Your task to perform on an android device: Turn on the flashlight Image 0: 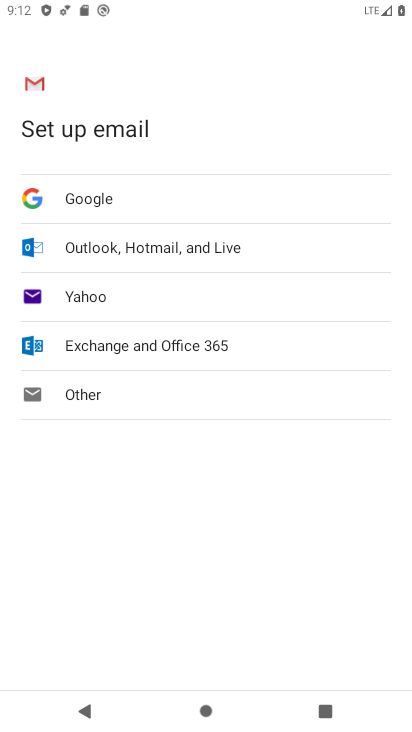
Step 0: press back button
Your task to perform on an android device: Turn on the flashlight Image 1: 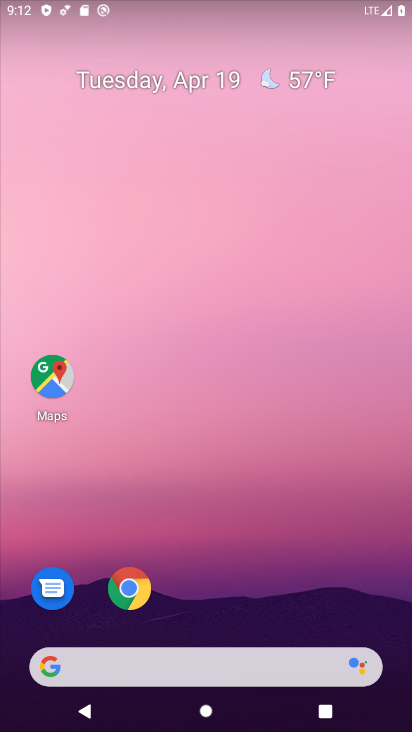
Step 1: drag from (263, 571) to (375, 1)
Your task to perform on an android device: Turn on the flashlight Image 2: 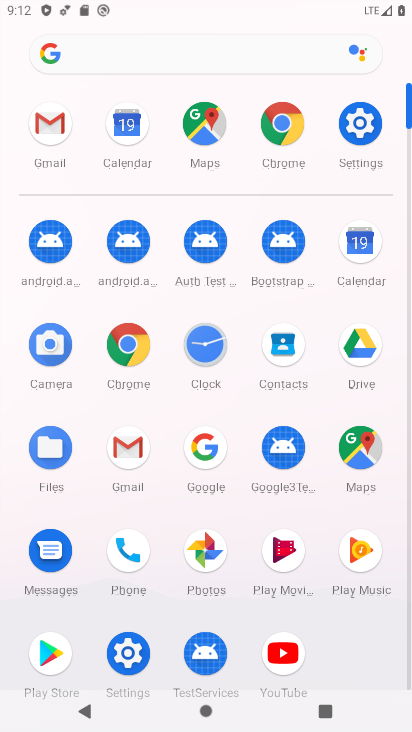
Step 2: click (346, 134)
Your task to perform on an android device: Turn on the flashlight Image 3: 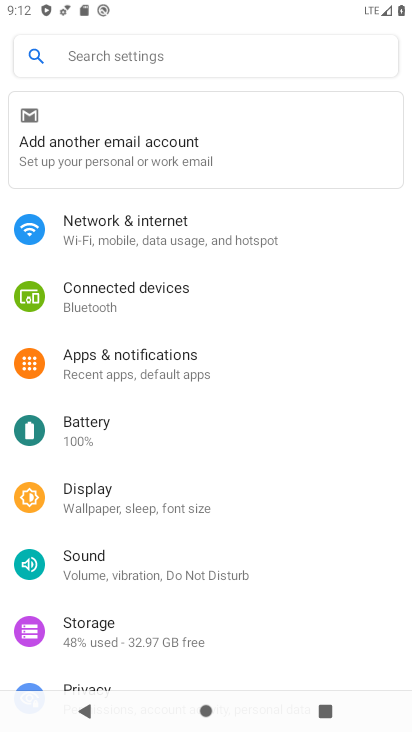
Step 3: task complete